Your task to perform on an android device: turn on airplane mode Image 0: 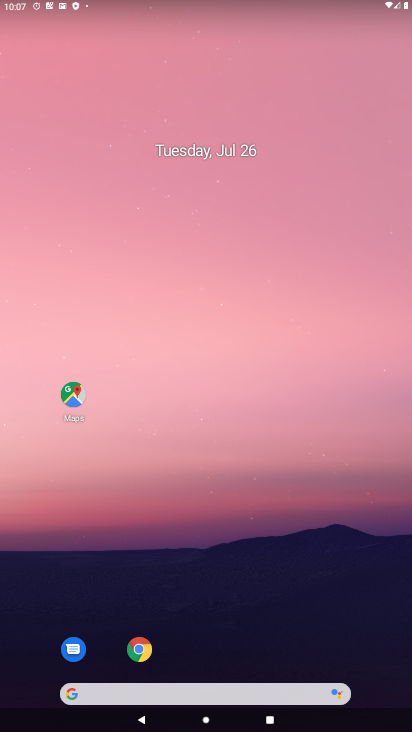
Step 0: drag from (212, 669) to (214, 65)
Your task to perform on an android device: turn on airplane mode Image 1: 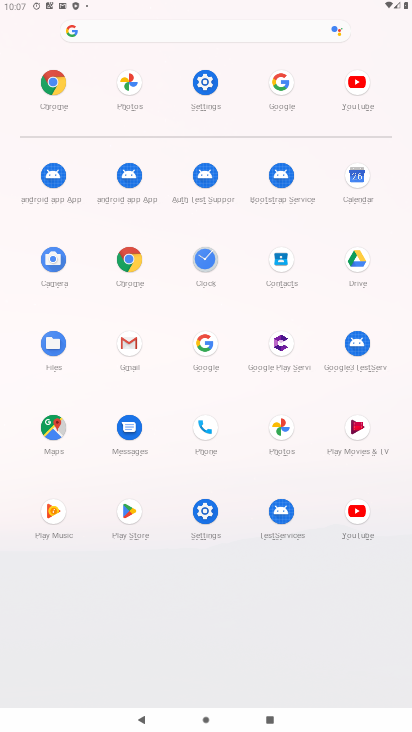
Step 1: click (205, 511)
Your task to perform on an android device: turn on airplane mode Image 2: 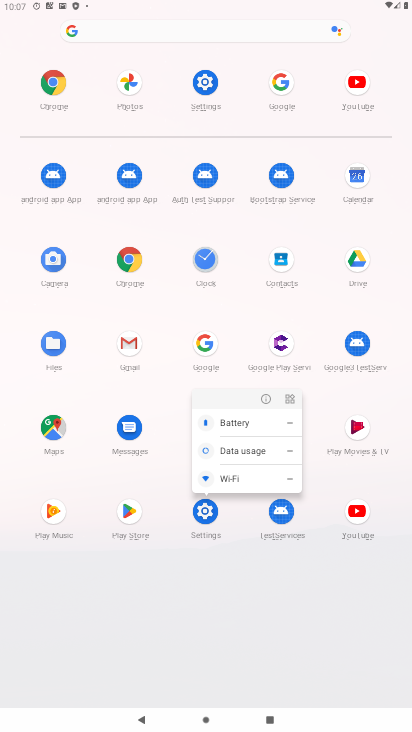
Step 2: click (263, 397)
Your task to perform on an android device: turn on airplane mode Image 3: 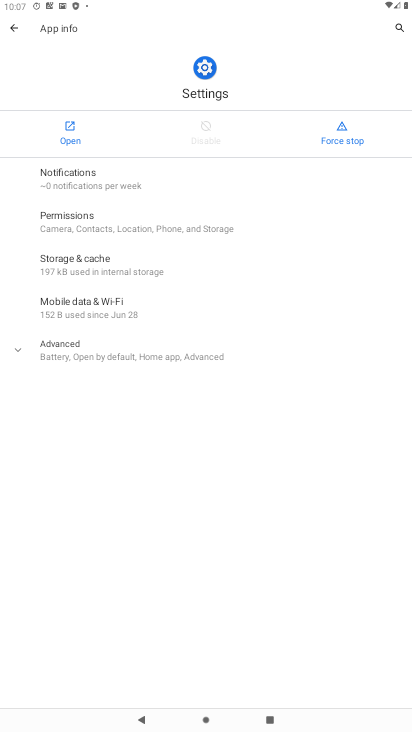
Step 3: click (75, 130)
Your task to perform on an android device: turn on airplane mode Image 4: 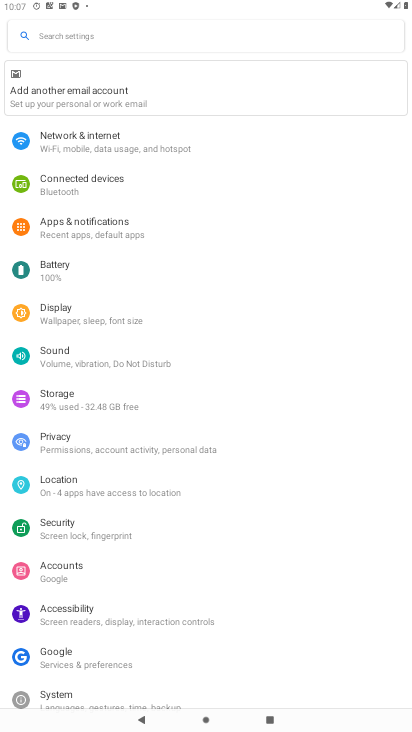
Step 4: click (127, 138)
Your task to perform on an android device: turn on airplane mode Image 5: 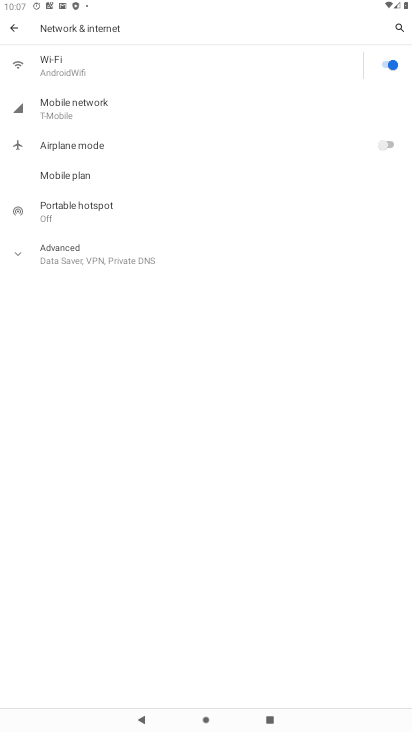
Step 5: click (109, 146)
Your task to perform on an android device: turn on airplane mode Image 6: 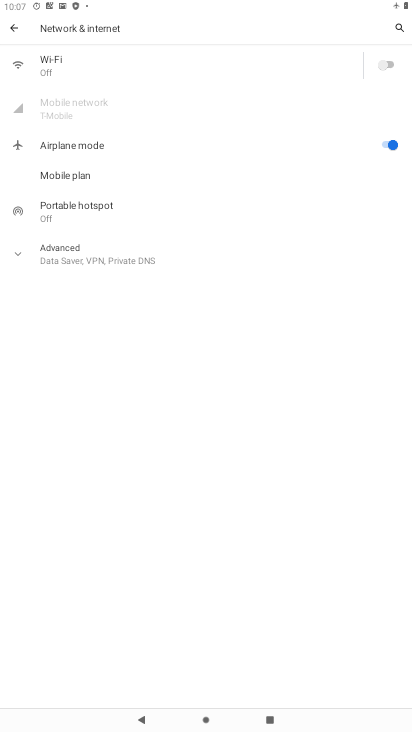
Step 6: task complete